Your task to perform on an android device: Empty the shopping cart on costco. Add razer blade to the cart on costco, then select checkout. Image 0: 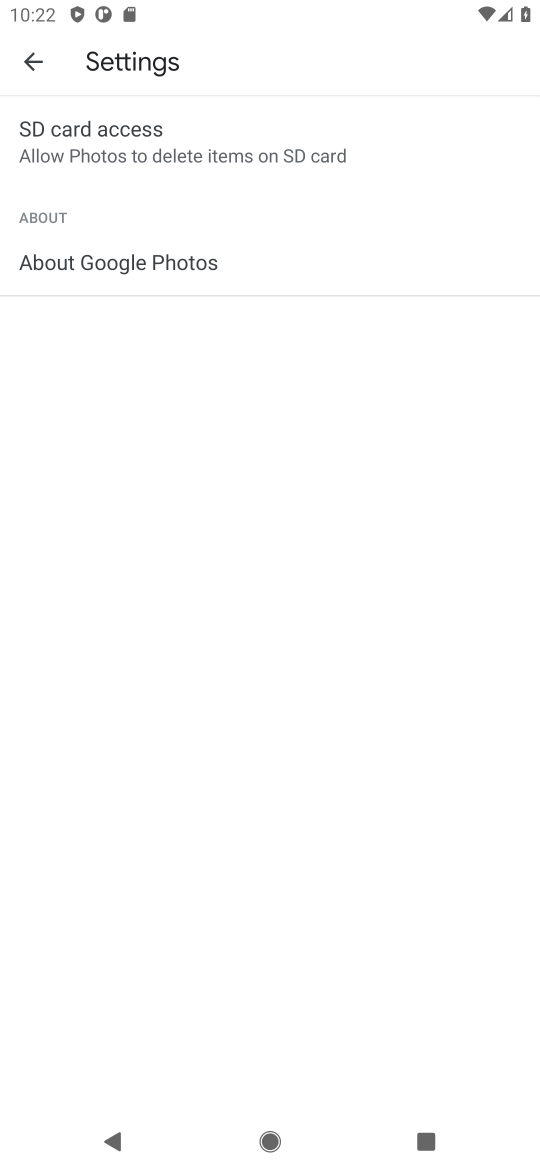
Step 0: press home button
Your task to perform on an android device: Empty the shopping cart on costco. Add razer blade to the cart on costco, then select checkout. Image 1: 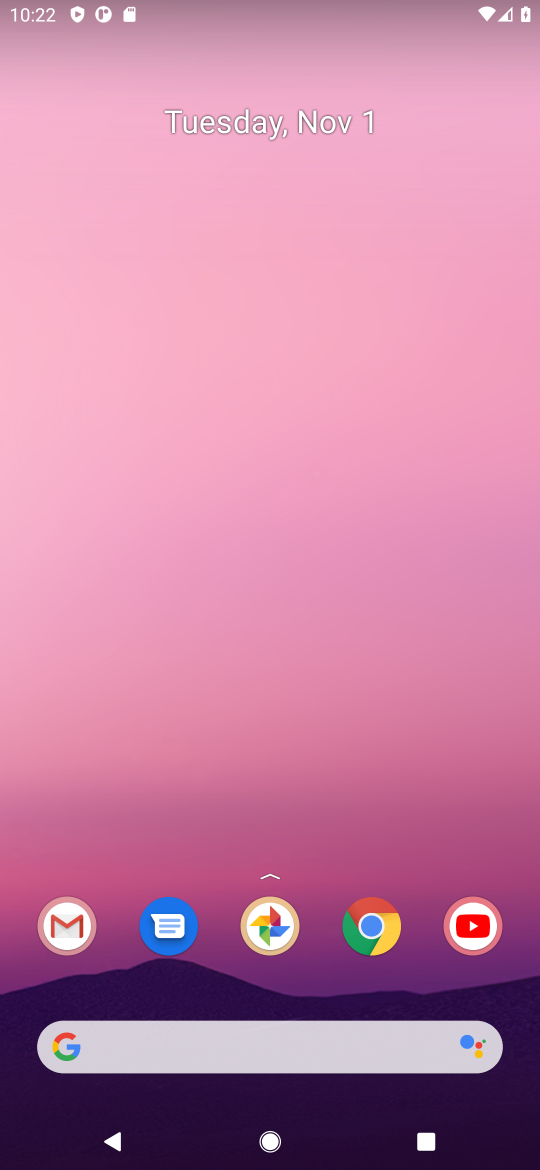
Step 1: click (369, 928)
Your task to perform on an android device: Empty the shopping cart on costco. Add razer blade to the cart on costco, then select checkout. Image 2: 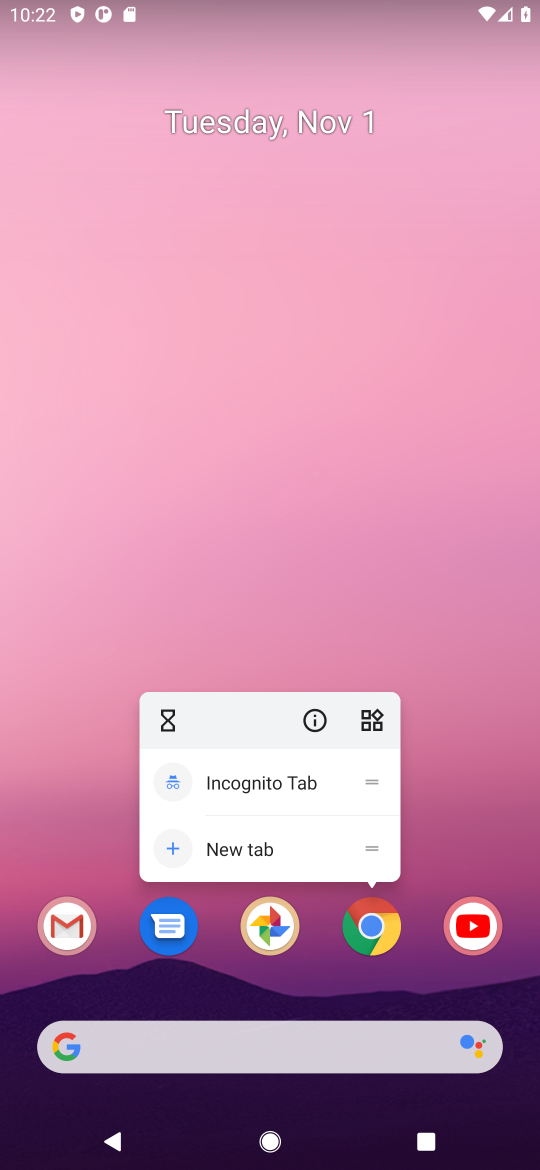
Step 2: click (372, 928)
Your task to perform on an android device: Empty the shopping cart on costco. Add razer blade to the cart on costco, then select checkout. Image 3: 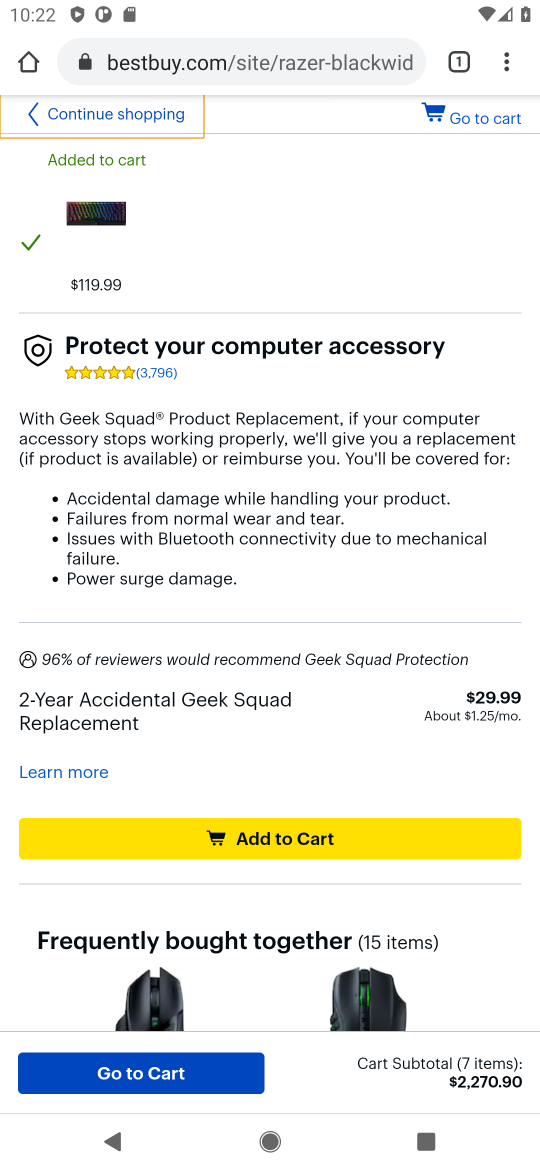
Step 3: click (143, 61)
Your task to perform on an android device: Empty the shopping cart on costco. Add razer blade to the cart on costco, then select checkout. Image 4: 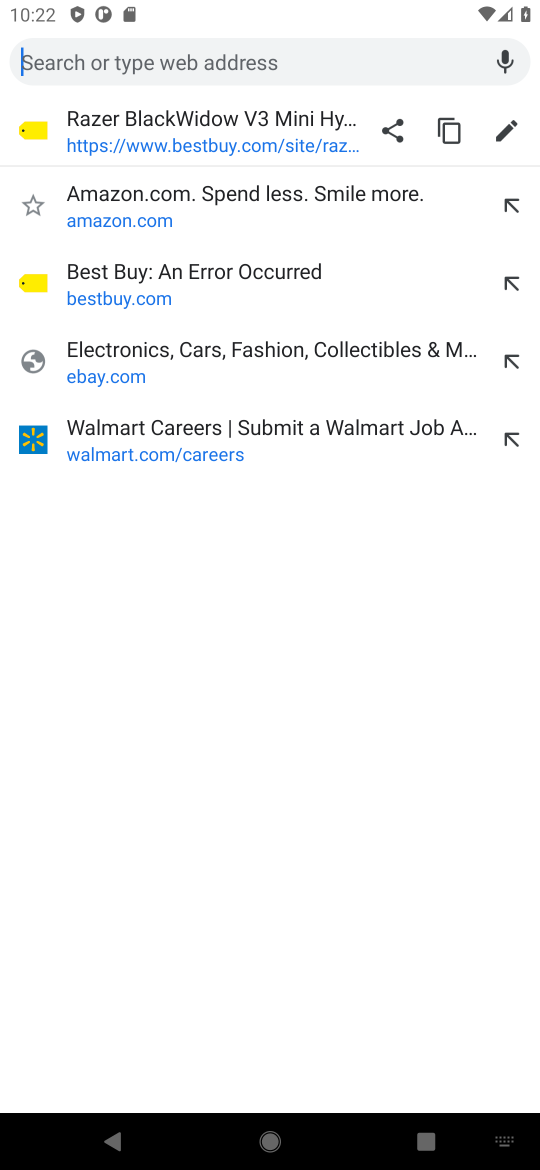
Step 4: type "costco"
Your task to perform on an android device: Empty the shopping cart on costco. Add razer blade to the cart on costco, then select checkout. Image 5: 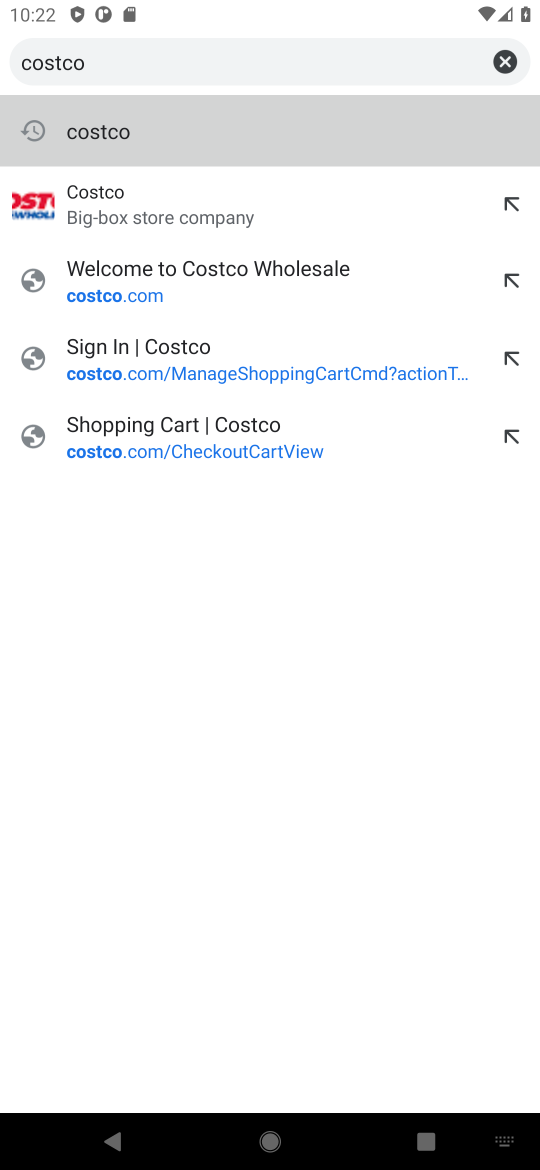
Step 5: type ""
Your task to perform on an android device: Empty the shopping cart on costco. Add razer blade to the cart on costco, then select checkout. Image 6: 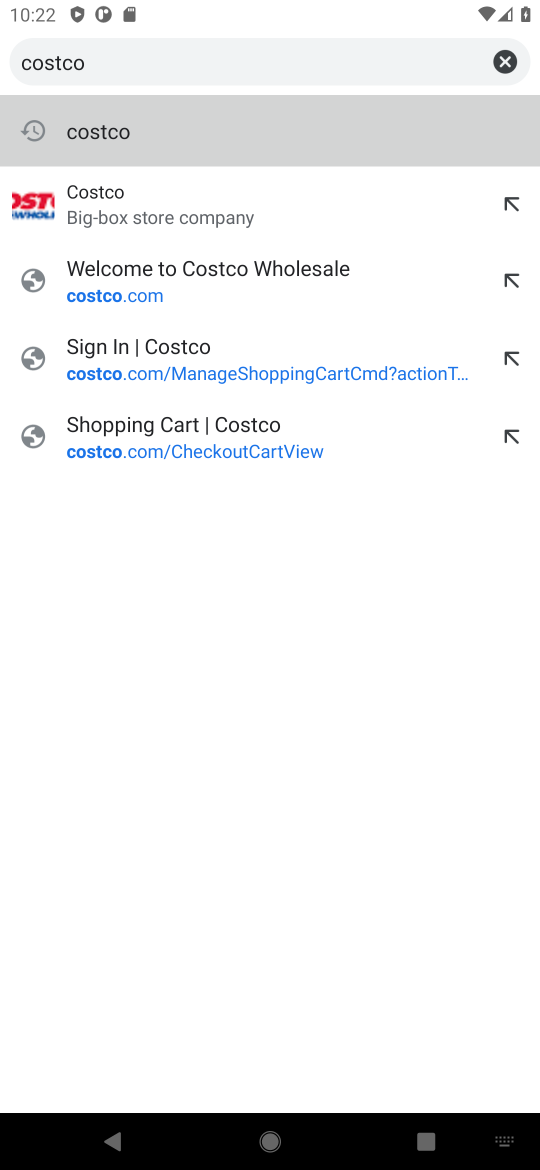
Step 6: click (98, 224)
Your task to perform on an android device: Empty the shopping cart on costco. Add razer blade to the cart on costco, then select checkout. Image 7: 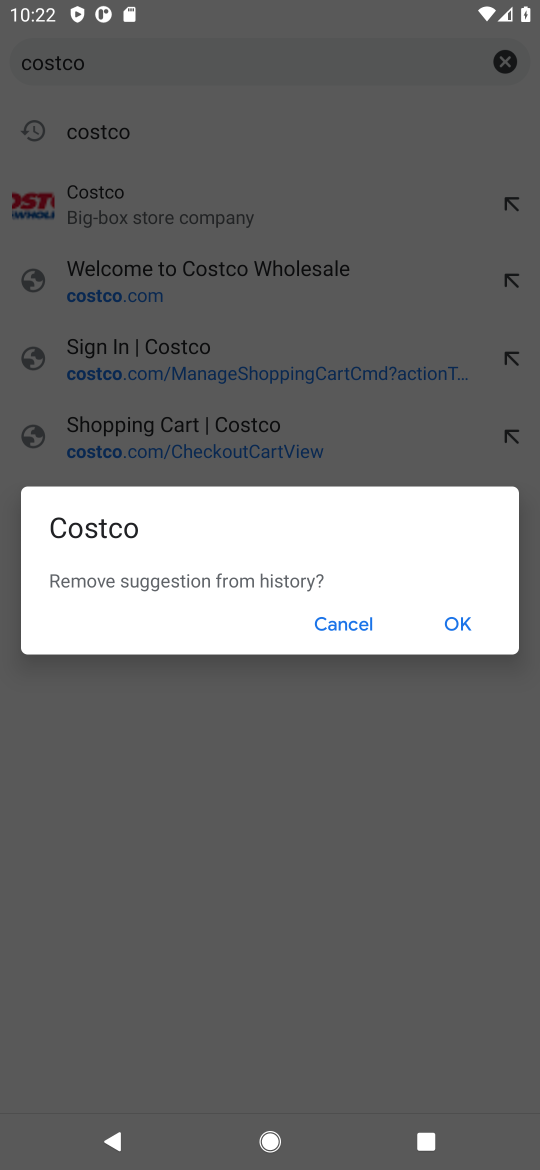
Step 7: click (452, 617)
Your task to perform on an android device: Empty the shopping cart on costco. Add razer blade to the cart on costco, then select checkout. Image 8: 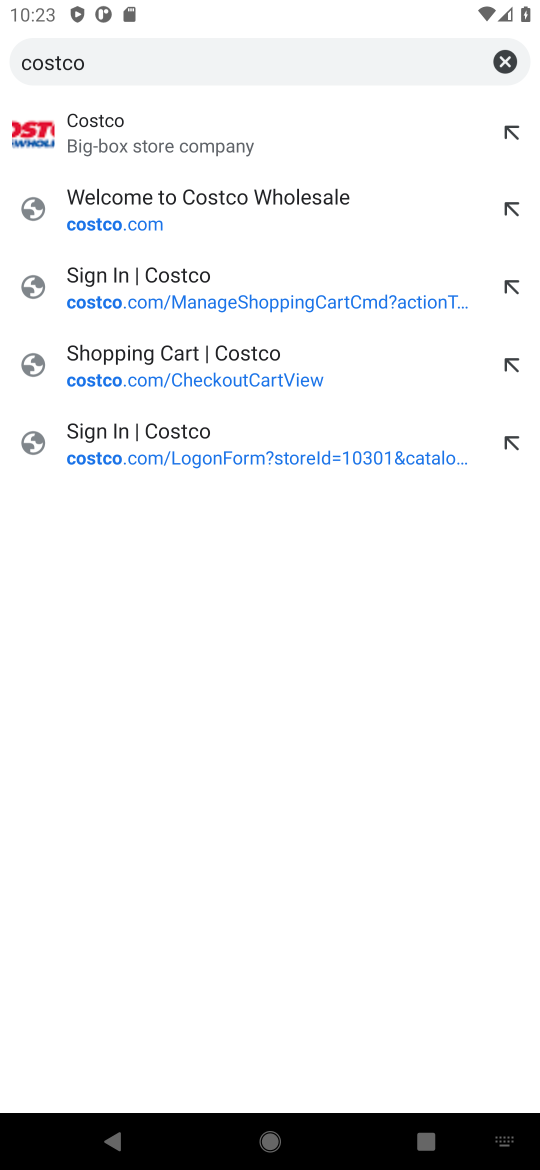
Step 8: click (158, 132)
Your task to perform on an android device: Empty the shopping cart on costco. Add razer blade to the cart on costco, then select checkout. Image 9: 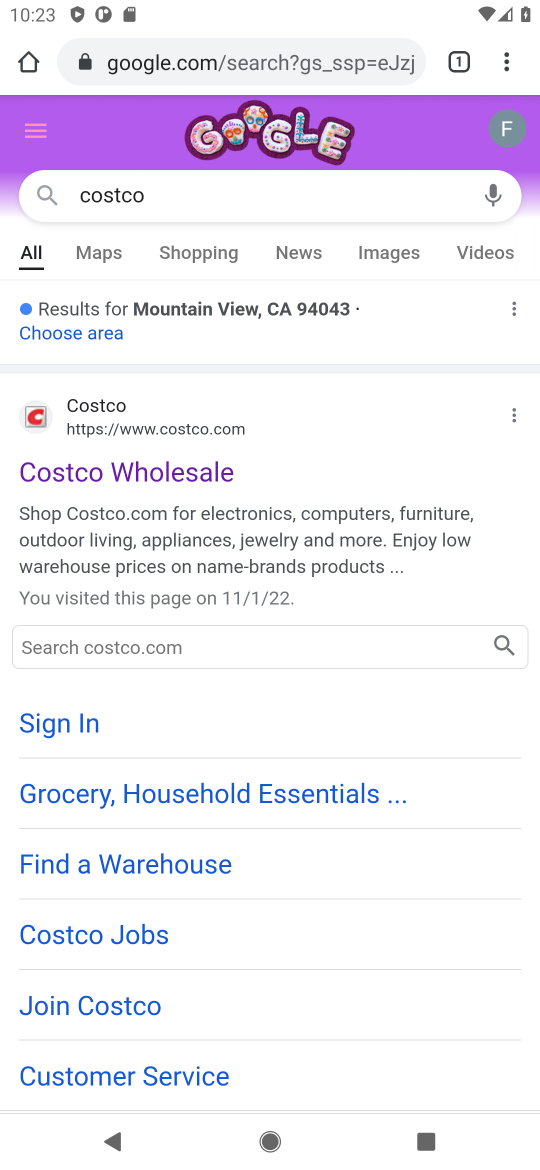
Step 9: click (154, 476)
Your task to perform on an android device: Empty the shopping cart on costco. Add razer blade to the cart on costco, then select checkout. Image 10: 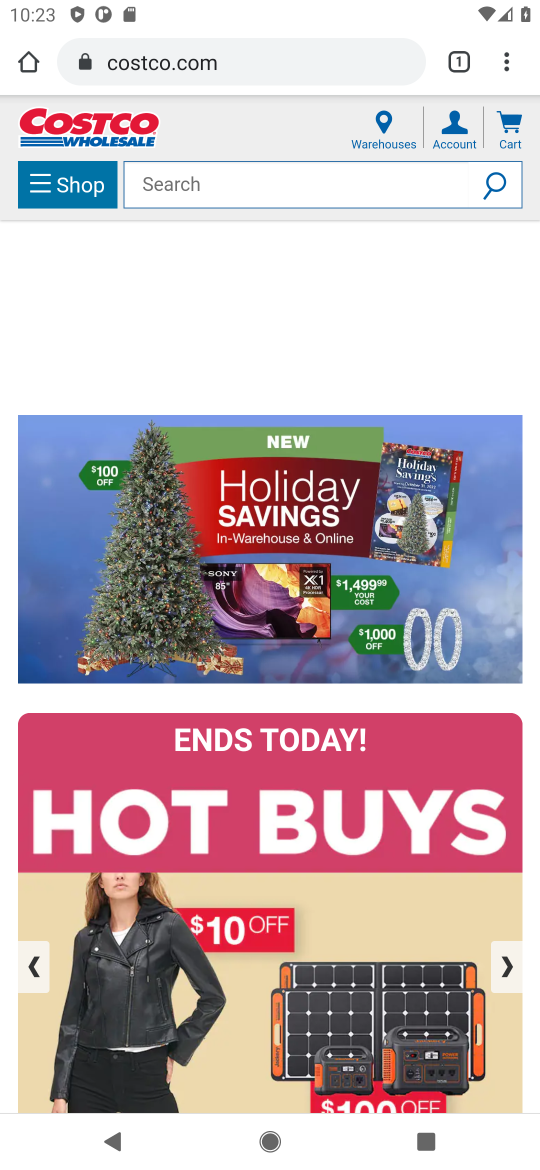
Step 10: click (180, 194)
Your task to perform on an android device: Empty the shopping cart on costco. Add razer blade to the cart on costco, then select checkout. Image 11: 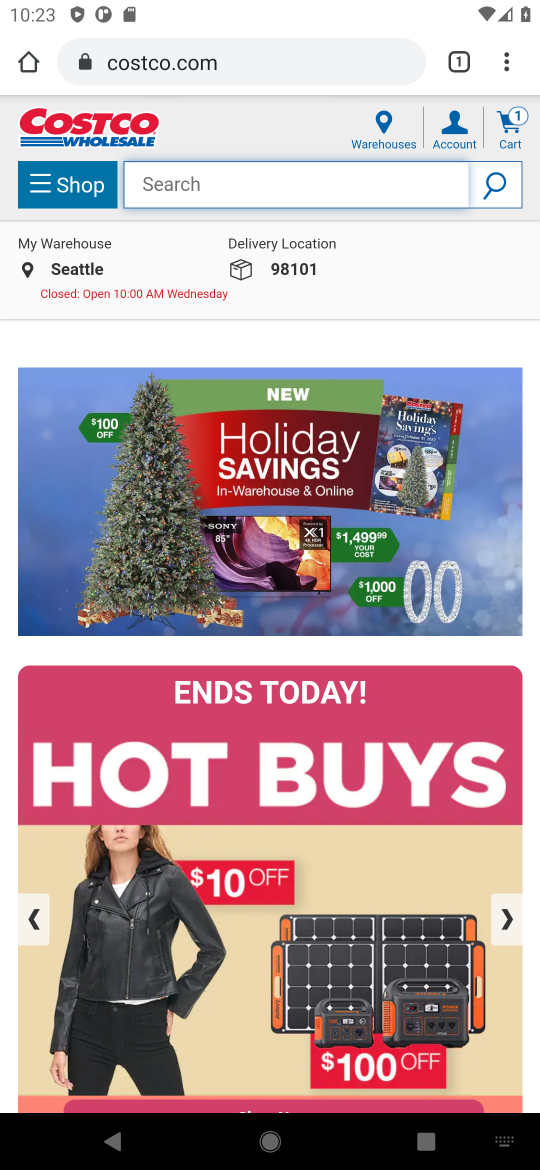
Step 11: click (532, 129)
Your task to perform on an android device: Empty the shopping cart on costco. Add razer blade to the cart on costco, then select checkout. Image 12: 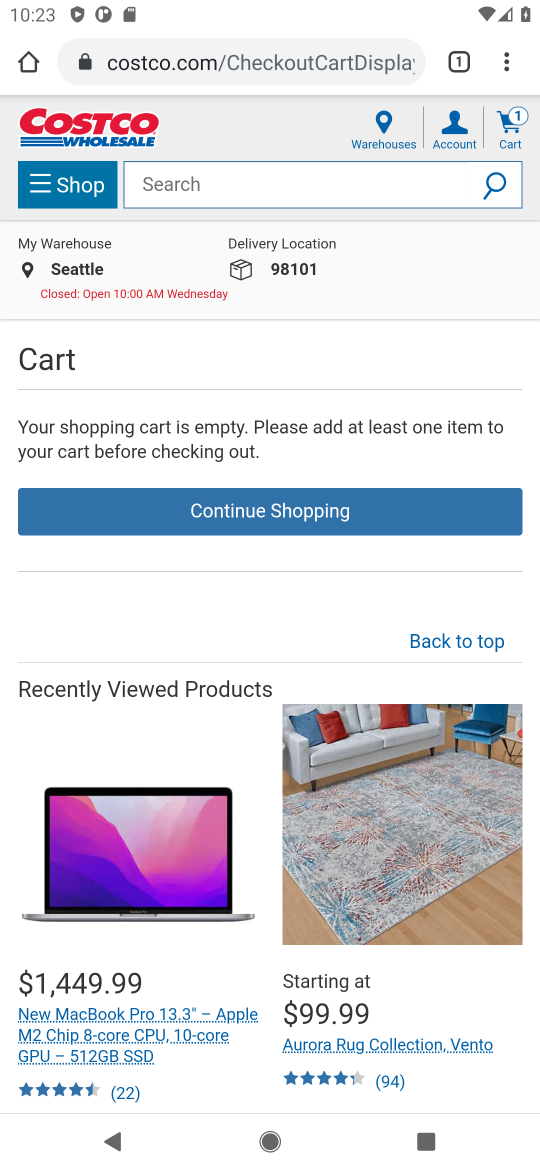
Step 12: drag from (161, 1007) to (237, 243)
Your task to perform on an android device: Empty the shopping cart on costco. Add razer blade to the cart on costco, then select checkout. Image 13: 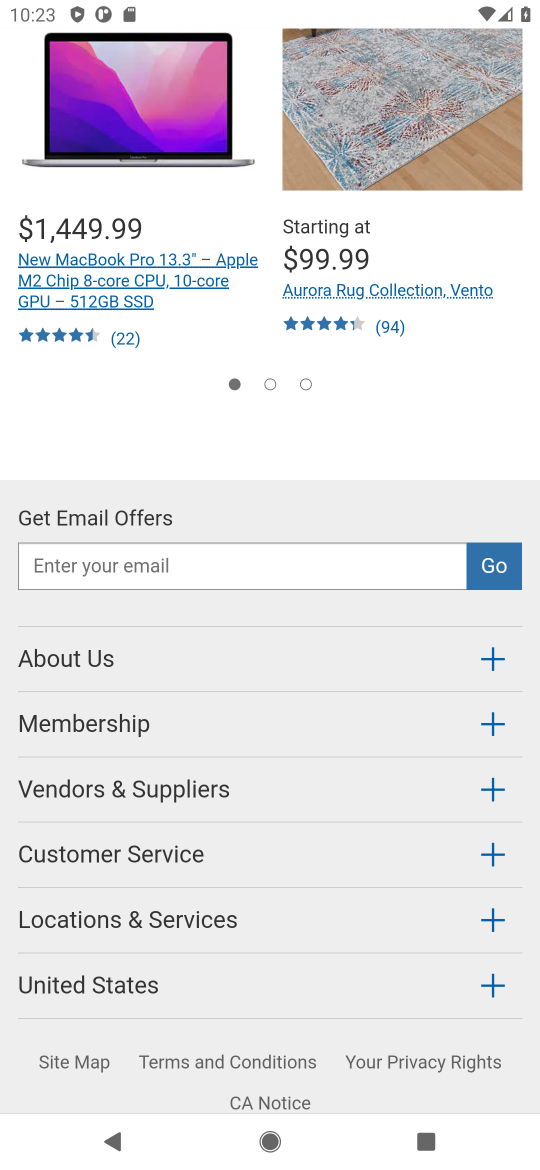
Step 13: drag from (220, 848) to (281, 855)
Your task to perform on an android device: Empty the shopping cart on costco. Add razer blade to the cart on costco, then select checkout. Image 14: 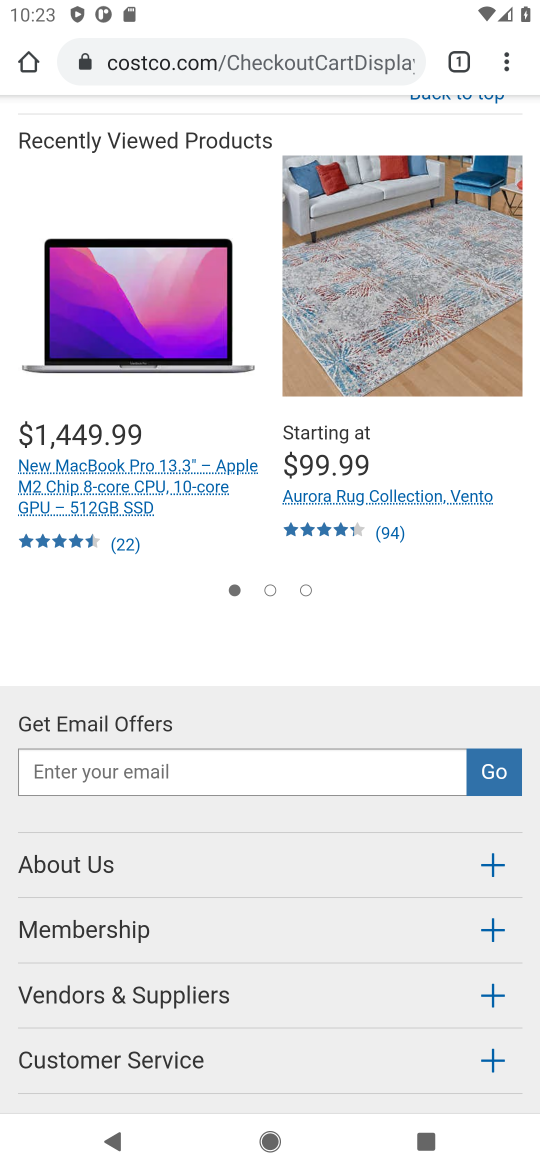
Step 14: drag from (299, 445) to (294, 918)
Your task to perform on an android device: Empty the shopping cart on costco. Add razer blade to the cart on costco, then select checkout. Image 15: 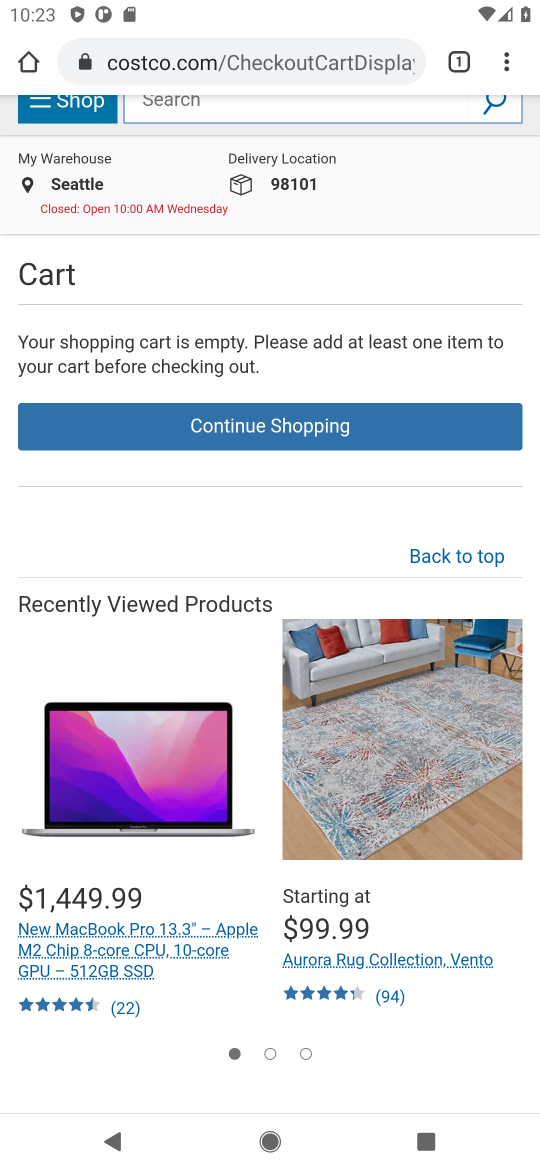
Step 15: drag from (220, 517) to (238, 1024)
Your task to perform on an android device: Empty the shopping cart on costco. Add razer blade to the cart on costco, then select checkout. Image 16: 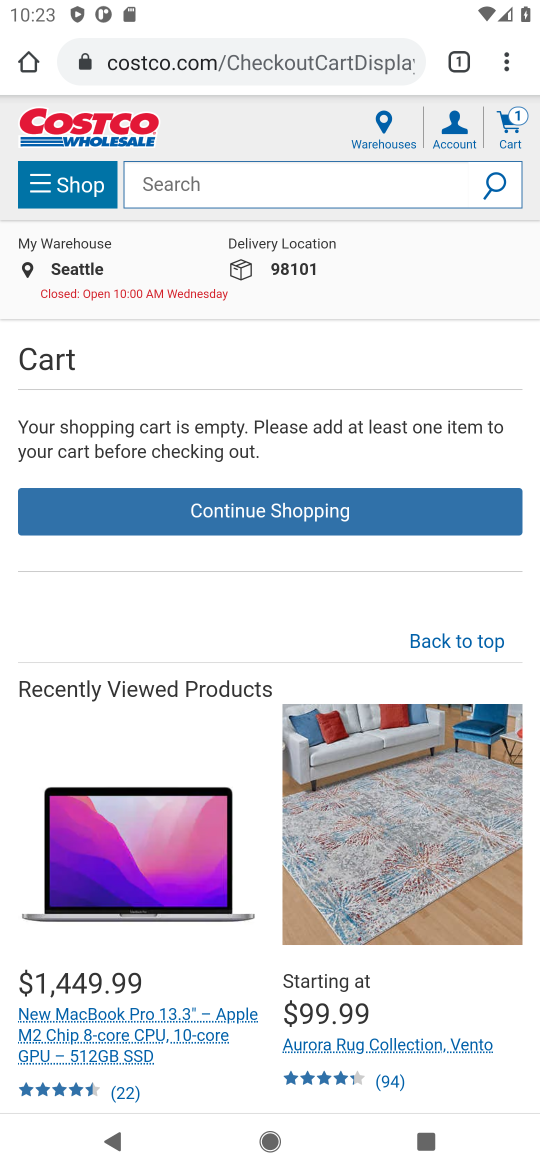
Step 16: click (163, 185)
Your task to perform on an android device: Empty the shopping cart on costco. Add razer blade to the cart on costco, then select checkout. Image 17: 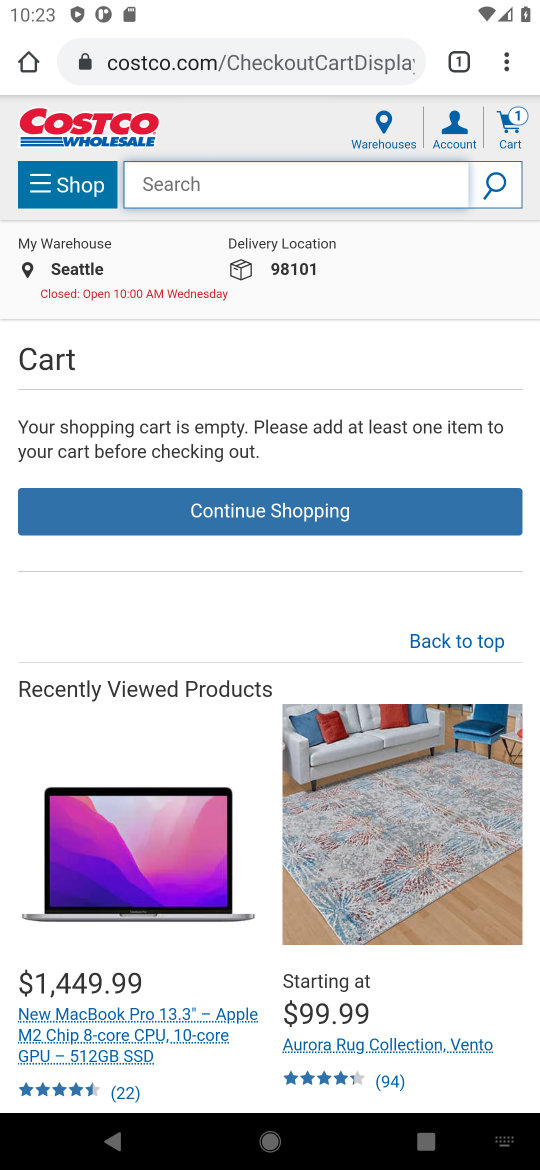
Step 17: type "razer blade"
Your task to perform on an android device: Empty the shopping cart on costco. Add razer blade to the cart on costco, then select checkout. Image 18: 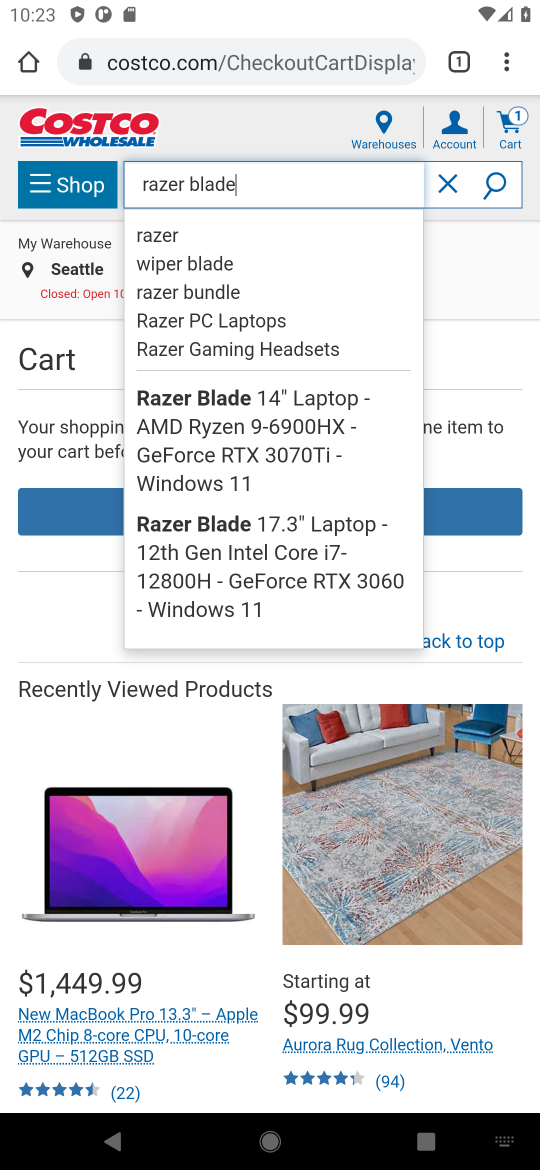
Step 18: click (158, 302)
Your task to perform on an android device: Empty the shopping cart on costco. Add razer blade to the cart on costco, then select checkout. Image 19: 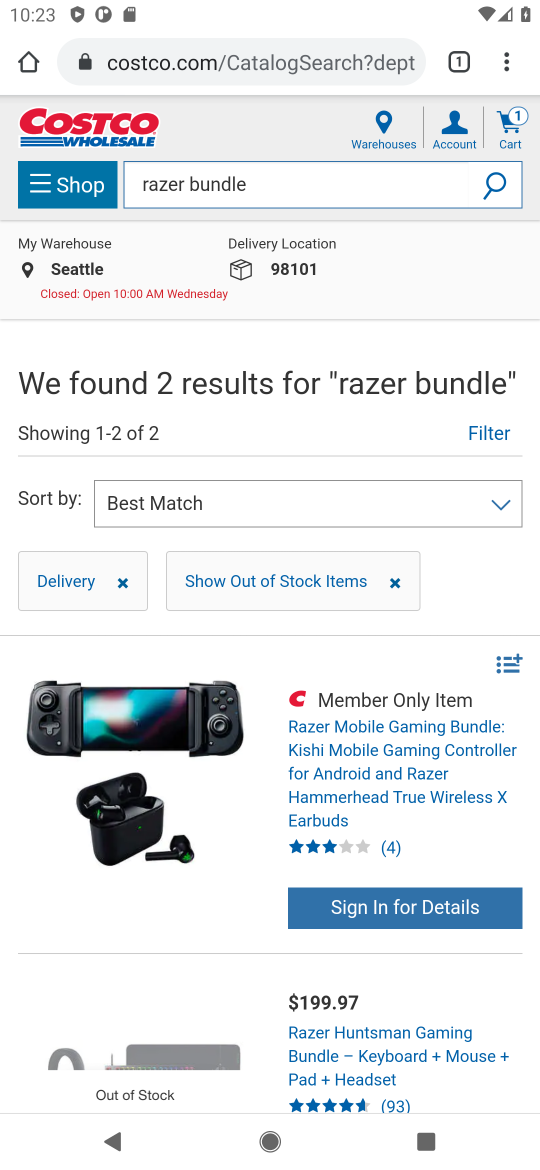
Step 19: drag from (166, 832) to (251, 376)
Your task to perform on an android device: Empty the shopping cart on costco. Add razer blade to the cart on costco, then select checkout. Image 20: 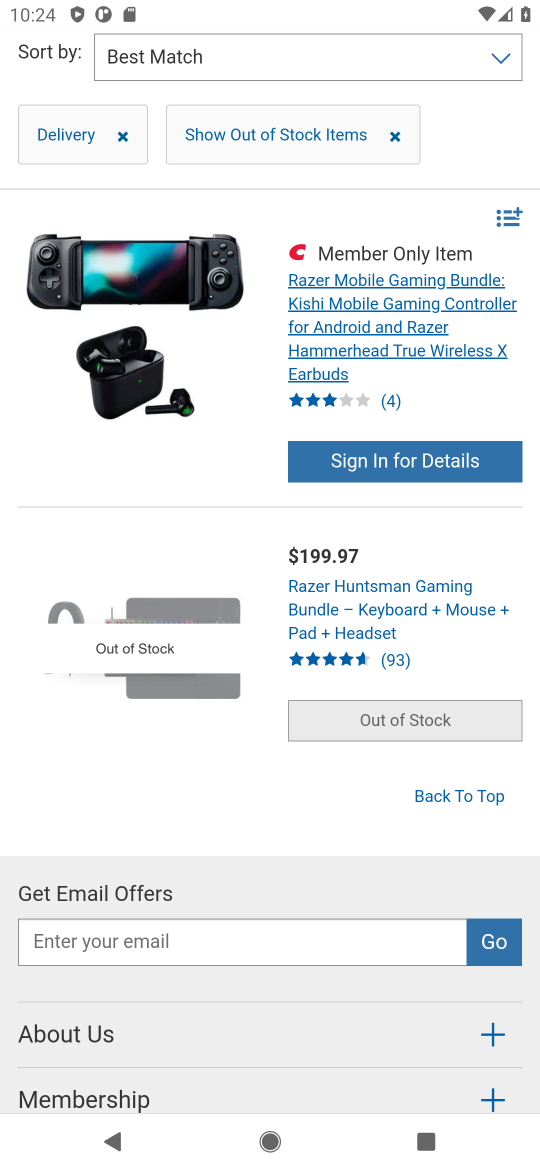
Step 20: click (361, 266)
Your task to perform on an android device: Empty the shopping cart on costco. Add razer blade to the cart on costco, then select checkout. Image 21: 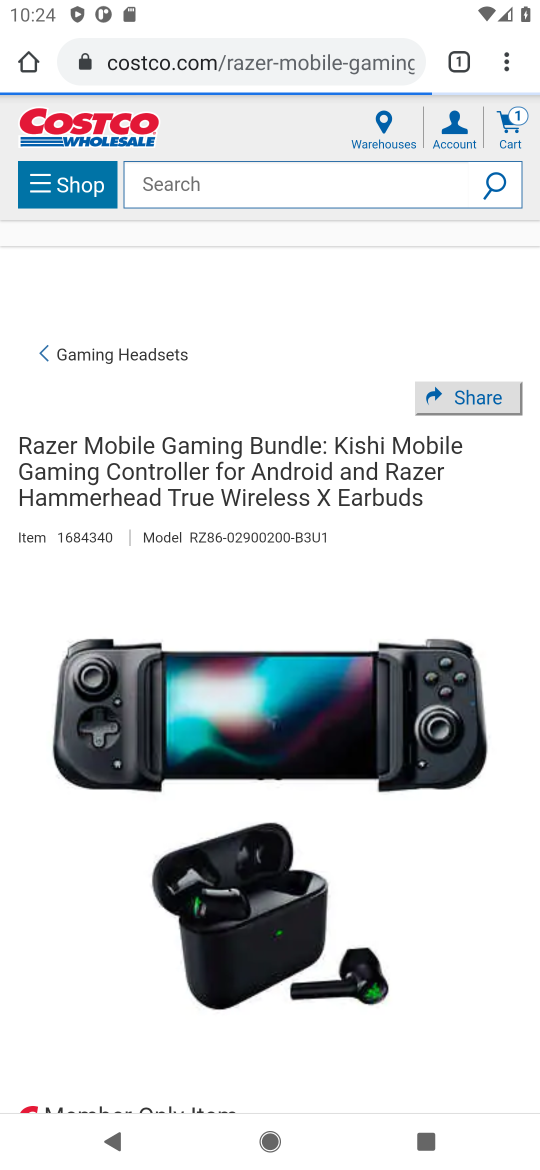
Step 21: drag from (243, 880) to (387, 395)
Your task to perform on an android device: Empty the shopping cart on costco. Add razer blade to the cart on costco, then select checkout. Image 22: 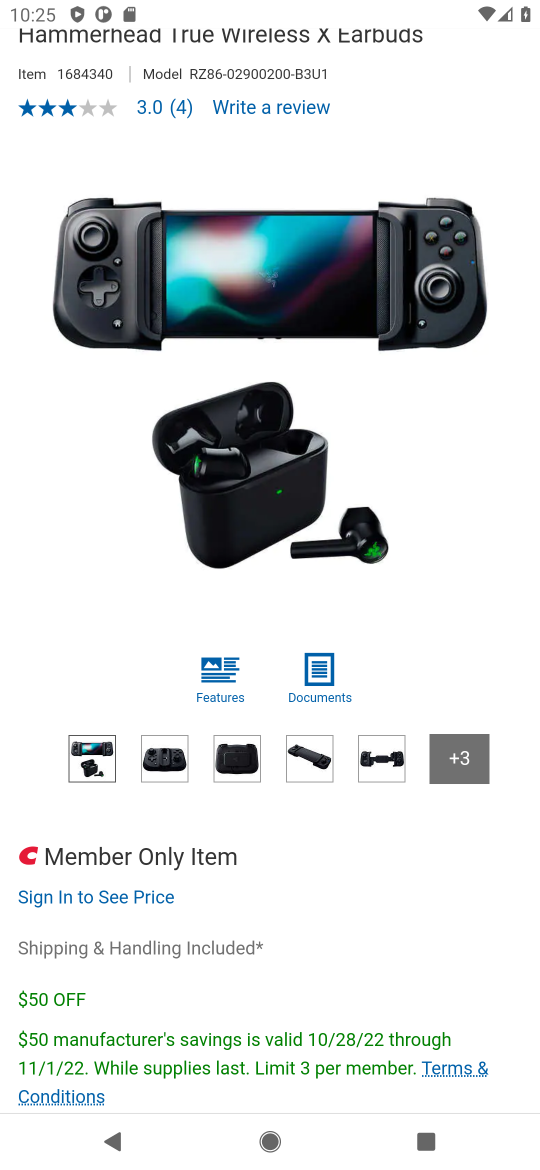
Step 22: drag from (262, 846) to (325, 80)
Your task to perform on an android device: Empty the shopping cart on costco. Add razer blade to the cart on costco, then select checkout. Image 23: 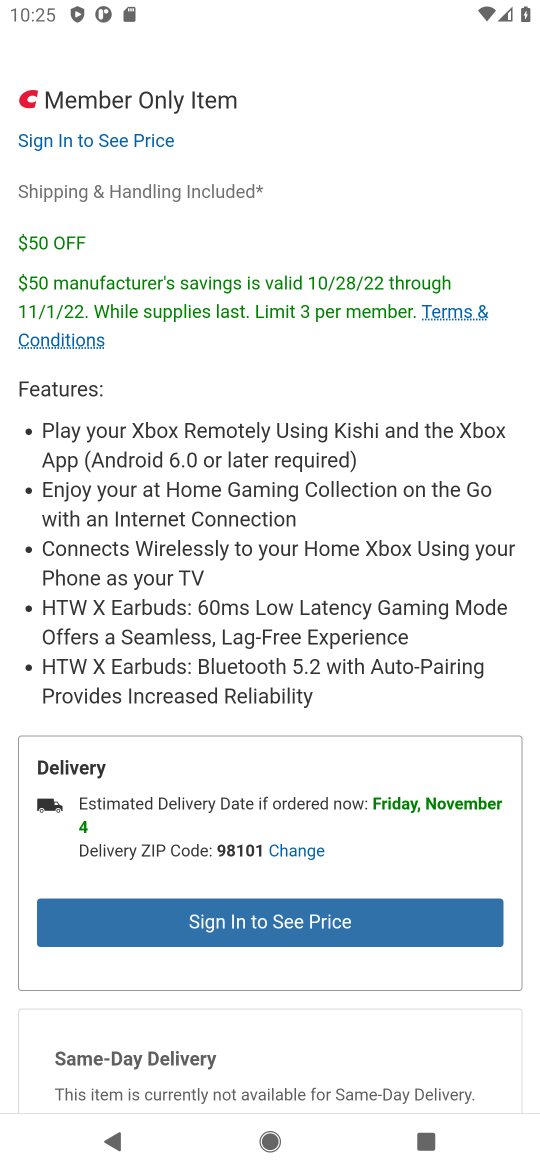
Step 23: click (243, 936)
Your task to perform on an android device: Empty the shopping cart on costco. Add razer blade to the cart on costco, then select checkout. Image 24: 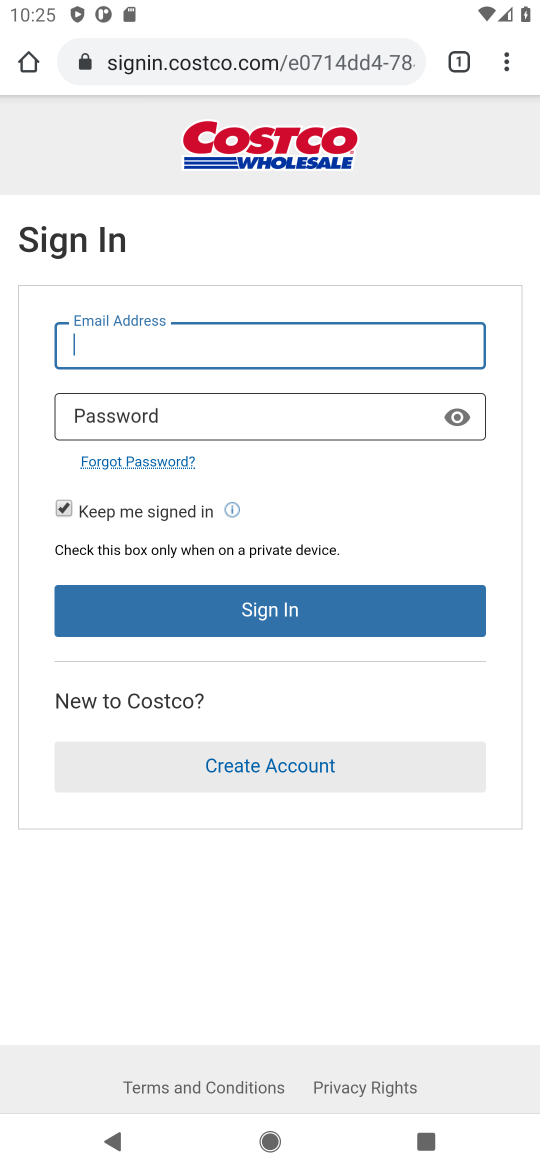
Step 24: click (248, 601)
Your task to perform on an android device: Empty the shopping cart on costco. Add razer blade to the cart on costco, then select checkout. Image 25: 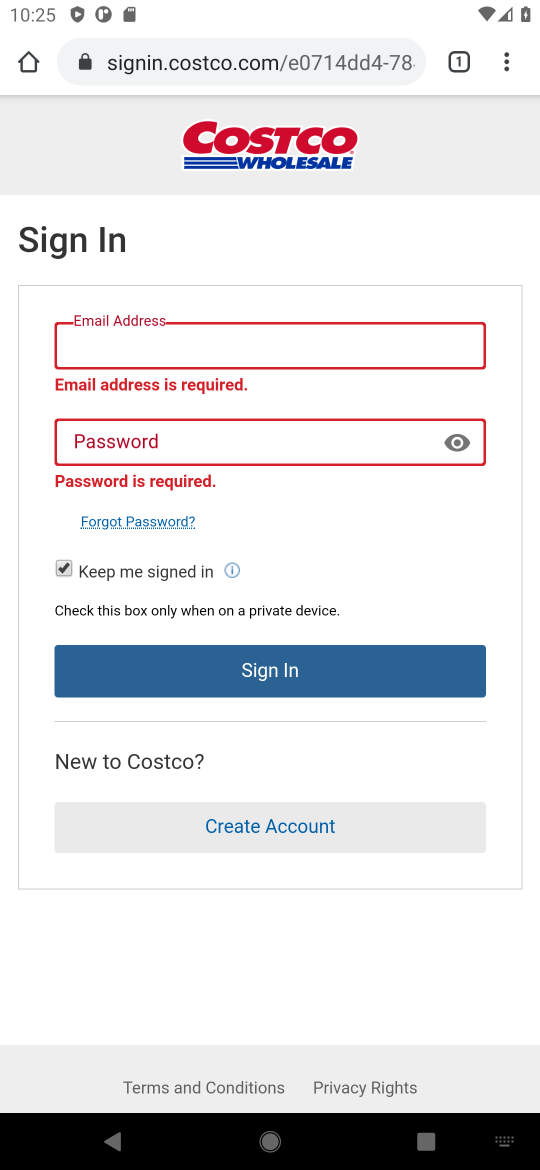
Step 25: press back button
Your task to perform on an android device: Empty the shopping cart on costco. Add razer blade to the cart on costco, then select checkout. Image 26: 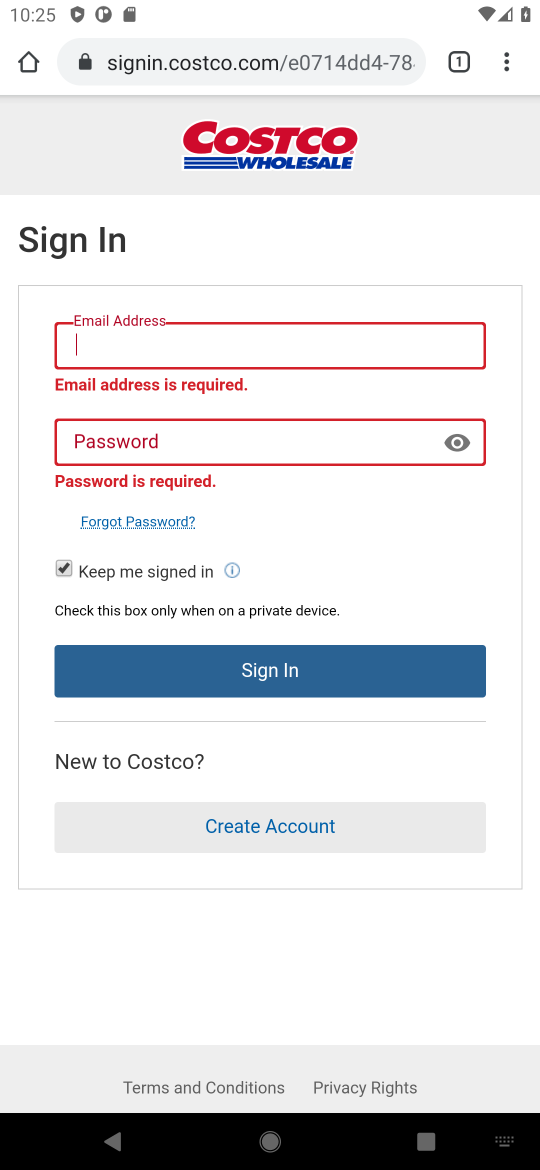
Step 26: press back button
Your task to perform on an android device: Empty the shopping cart on costco. Add razer blade to the cart on costco, then select checkout. Image 27: 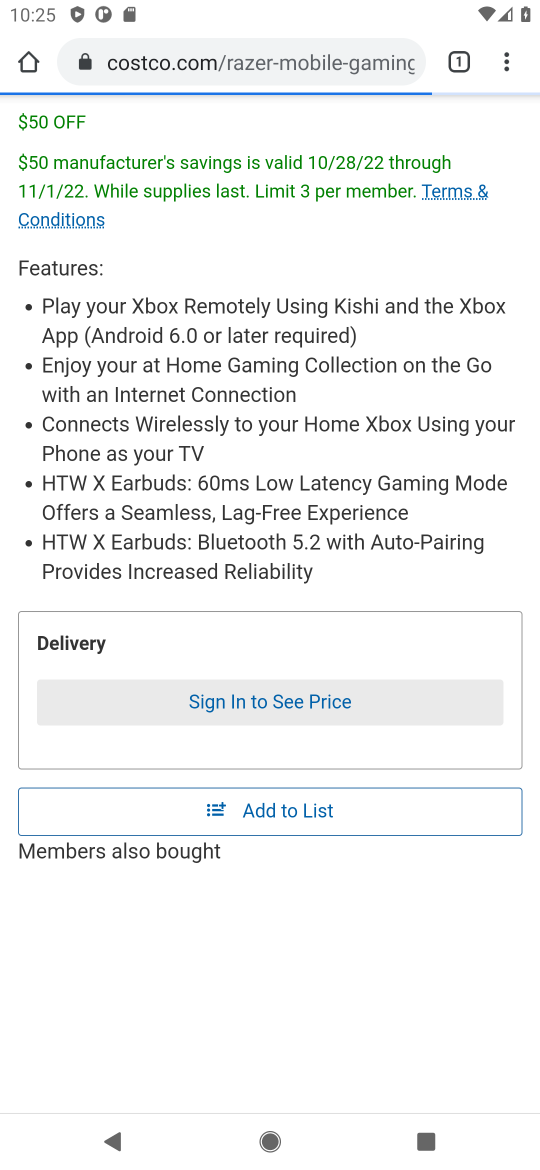
Step 27: drag from (172, 865) to (170, 288)
Your task to perform on an android device: Empty the shopping cart on costco. Add razer blade to the cart on costco, then select checkout. Image 28: 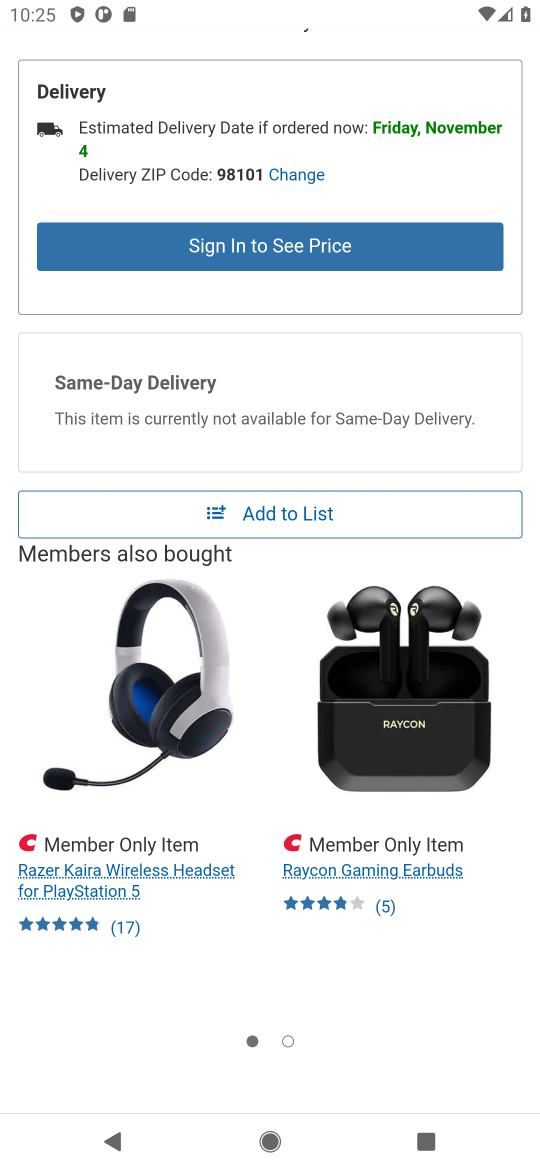
Step 28: click (266, 524)
Your task to perform on an android device: Empty the shopping cart on costco. Add razer blade to the cart on costco, then select checkout. Image 29: 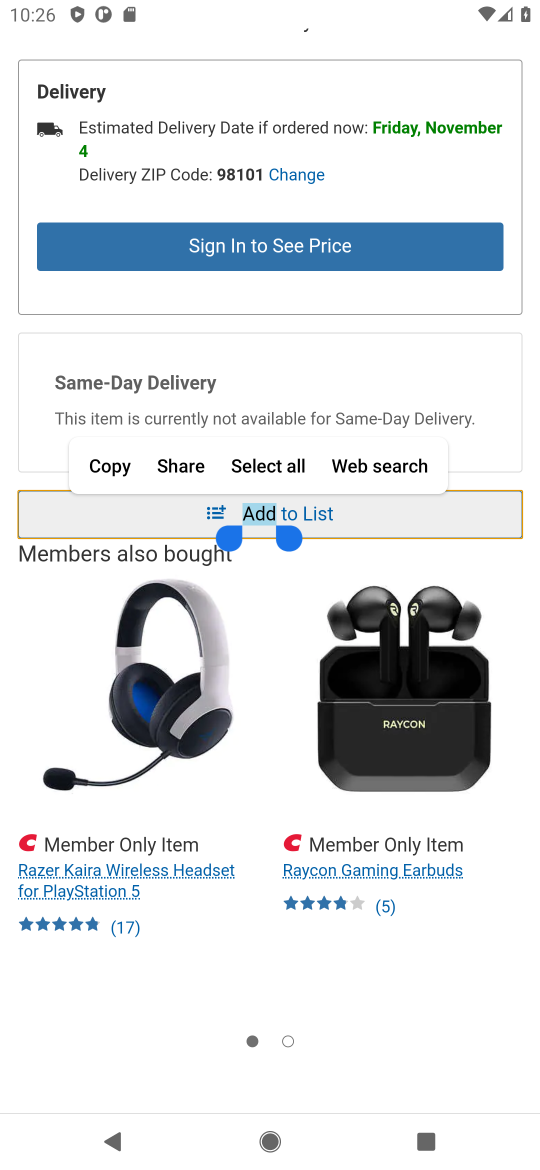
Step 29: click (319, 515)
Your task to perform on an android device: Empty the shopping cart on costco. Add razer blade to the cart on costco, then select checkout. Image 30: 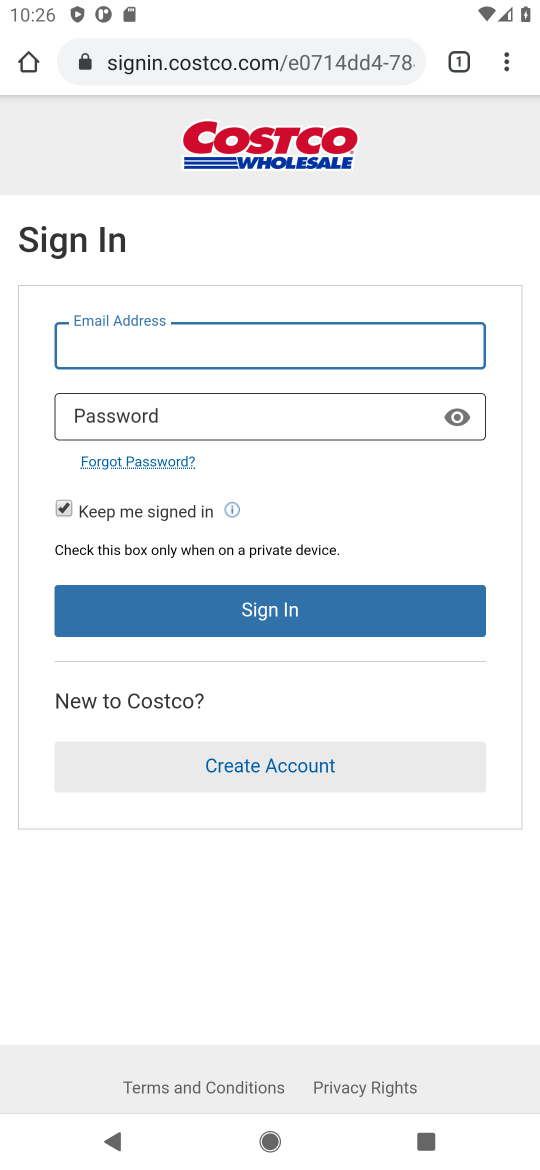
Step 30: task complete